Your task to perform on an android device: clear history in the chrome app Image 0: 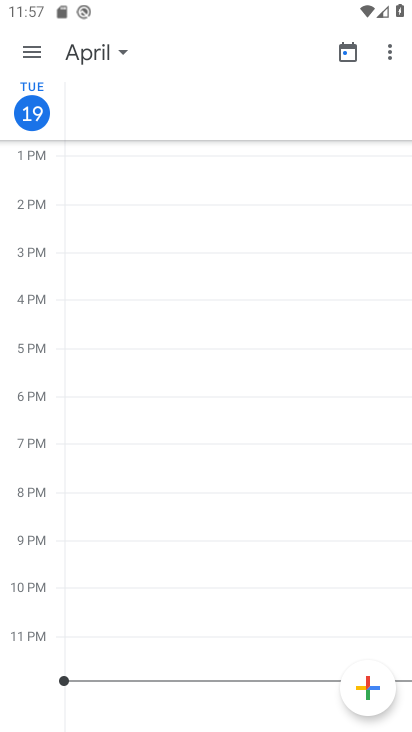
Step 0: drag from (179, 481) to (347, 150)
Your task to perform on an android device: clear history in the chrome app Image 1: 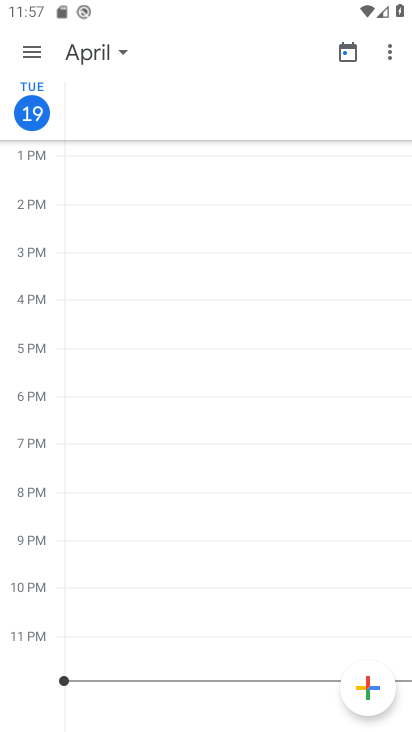
Step 1: press home button
Your task to perform on an android device: clear history in the chrome app Image 2: 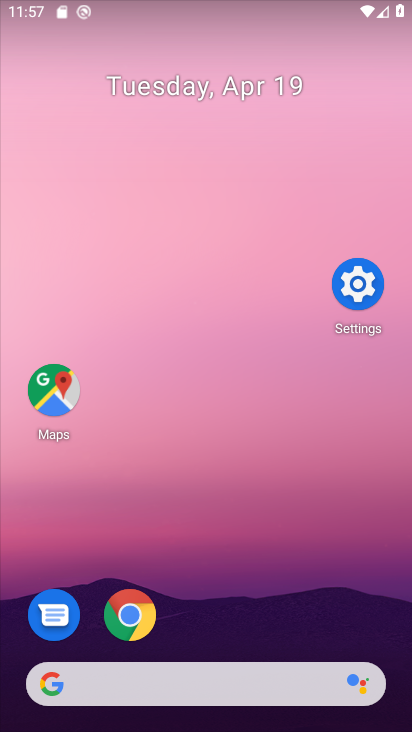
Step 2: drag from (190, 634) to (257, 22)
Your task to perform on an android device: clear history in the chrome app Image 3: 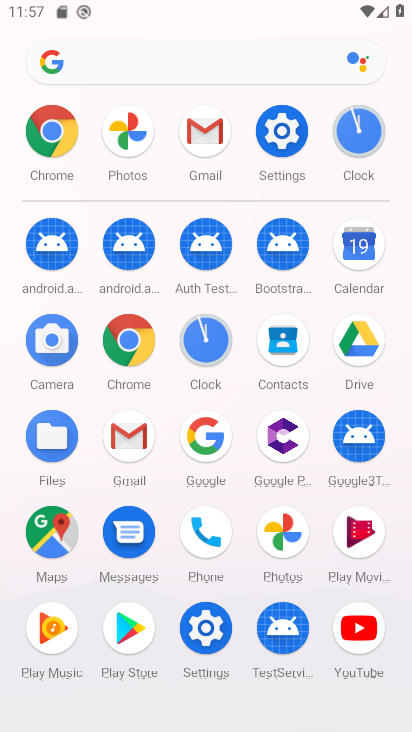
Step 3: click (119, 328)
Your task to perform on an android device: clear history in the chrome app Image 4: 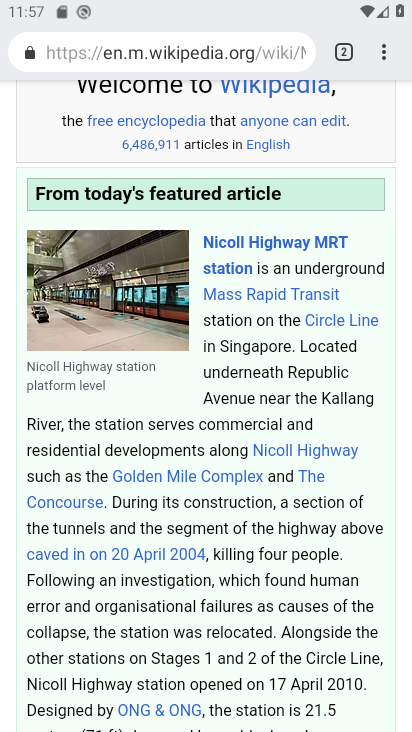
Step 4: drag from (221, 188) to (216, 718)
Your task to perform on an android device: clear history in the chrome app Image 5: 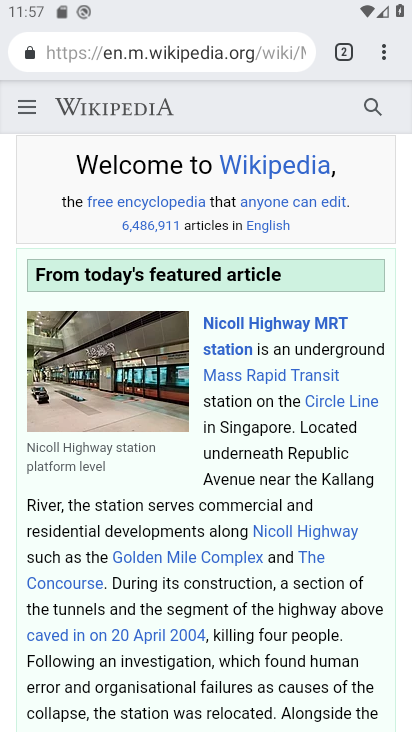
Step 5: drag from (384, 46) to (228, 311)
Your task to perform on an android device: clear history in the chrome app Image 6: 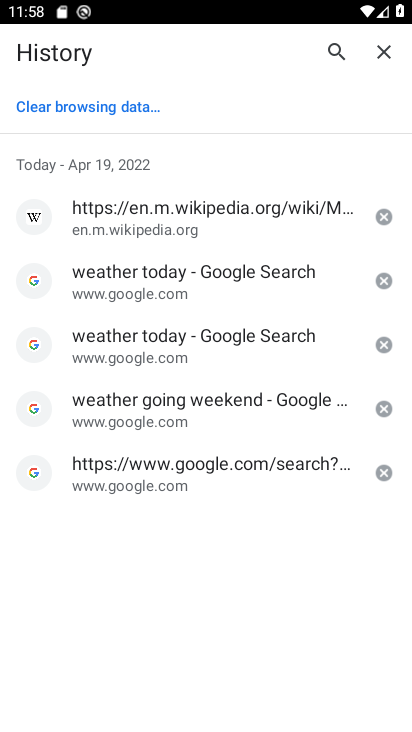
Step 6: click (65, 116)
Your task to perform on an android device: clear history in the chrome app Image 7: 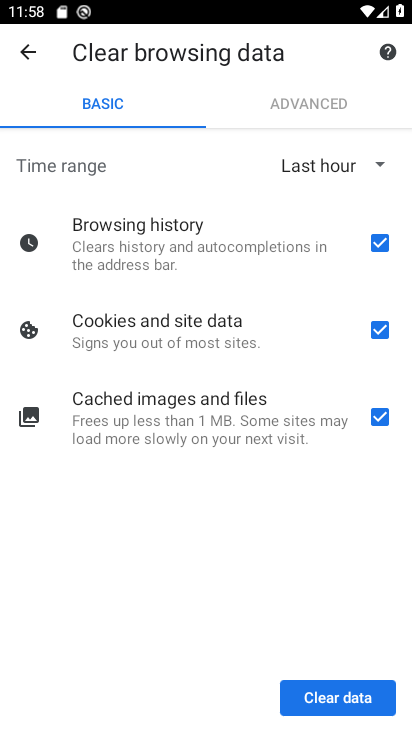
Step 7: click (322, 690)
Your task to perform on an android device: clear history in the chrome app Image 8: 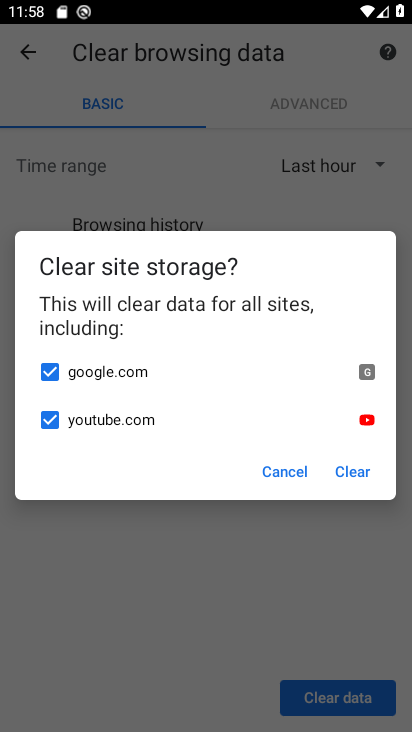
Step 8: click (356, 474)
Your task to perform on an android device: clear history in the chrome app Image 9: 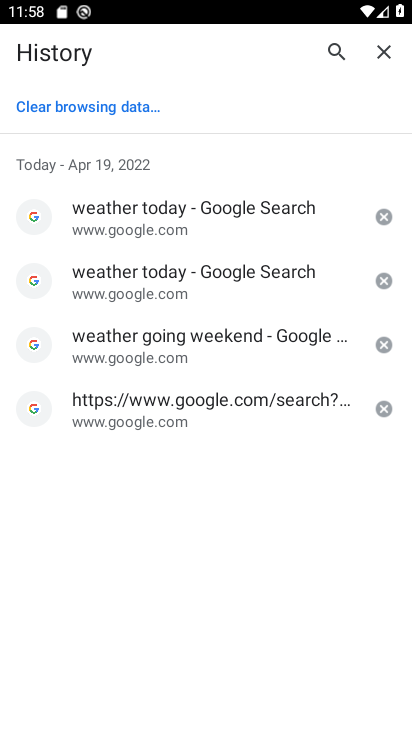
Step 9: task complete